Your task to perform on an android device: Open wifi settings Image 0: 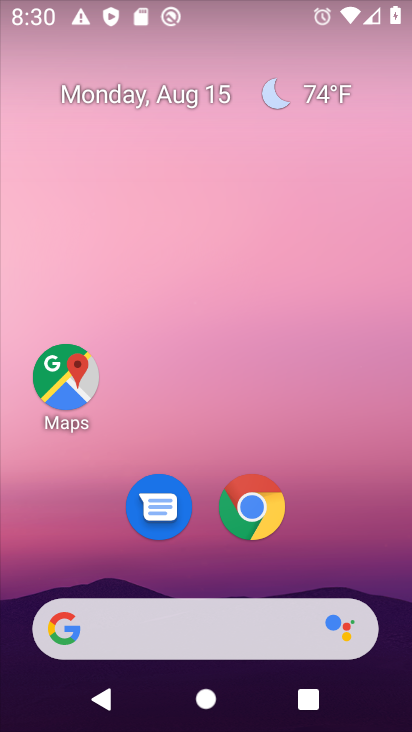
Step 0: drag from (281, 639) to (318, 150)
Your task to perform on an android device: Open wifi settings Image 1: 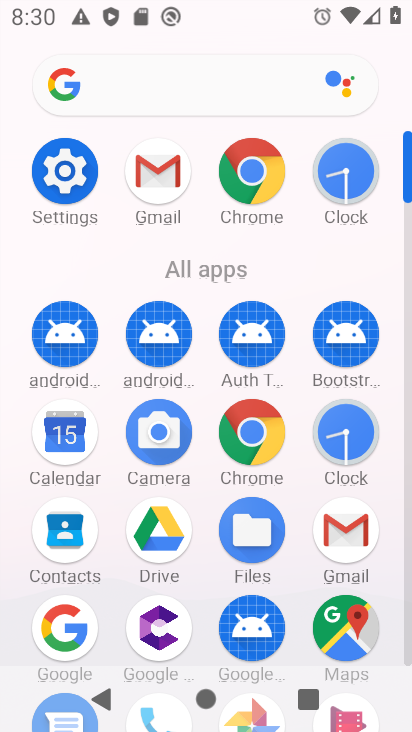
Step 1: click (48, 178)
Your task to perform on an android device: Open wifi settings Image 2: 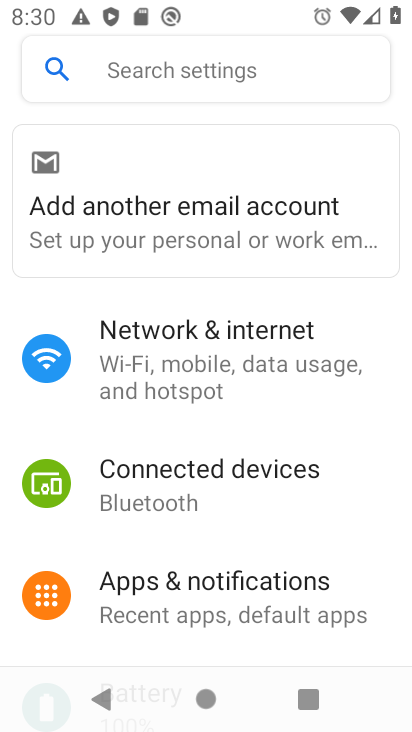
Step 2: click (209, 357)
Your task to perform on an android device: Open wifi settings Image 3: 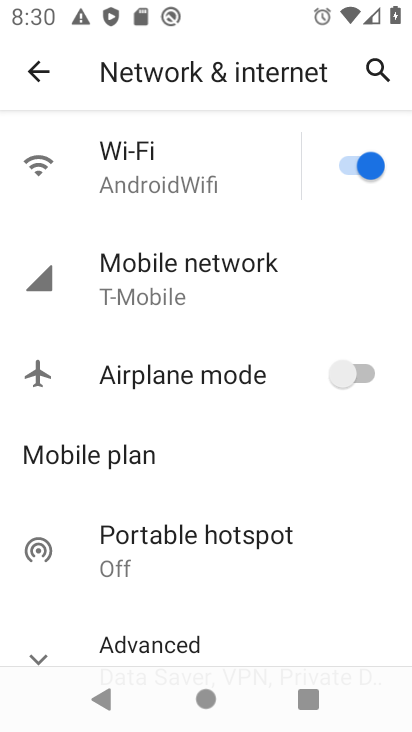
Step 3: click (171, 178)
Your task to perform on an android device: Open wifi settings Image 4: 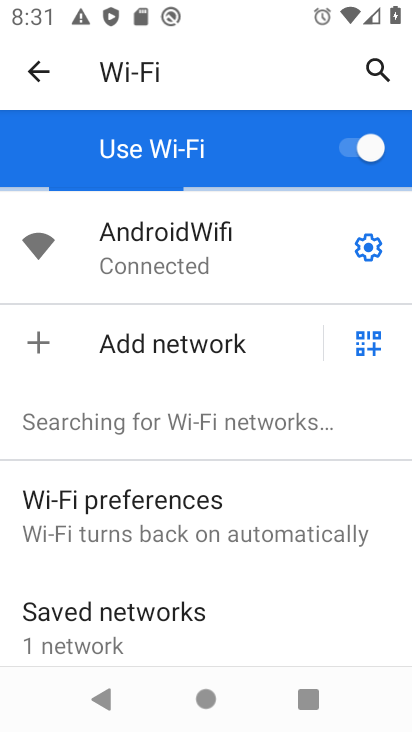
Step 4: task complete